Your task to perform on an android device: toggle airplane mode Image 0: 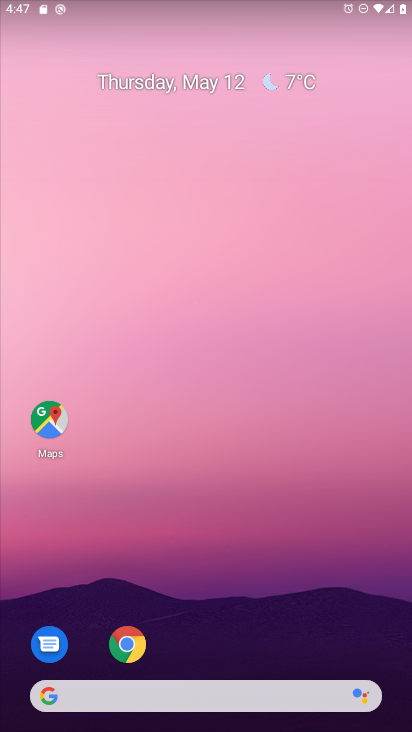
Step 0: drag from (236, 641) to (317, 209)
Your task to perform on an android device: toggle airplane mode Image 1: 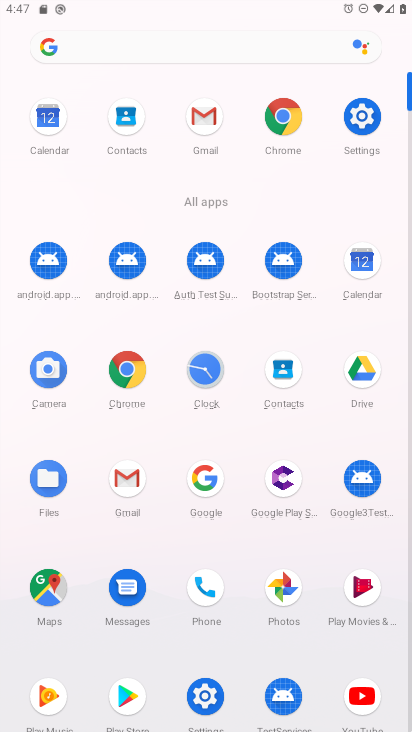
Step 1: click (361, 132)
Your task to perform on an android device: toggle airplane mode Image 2: 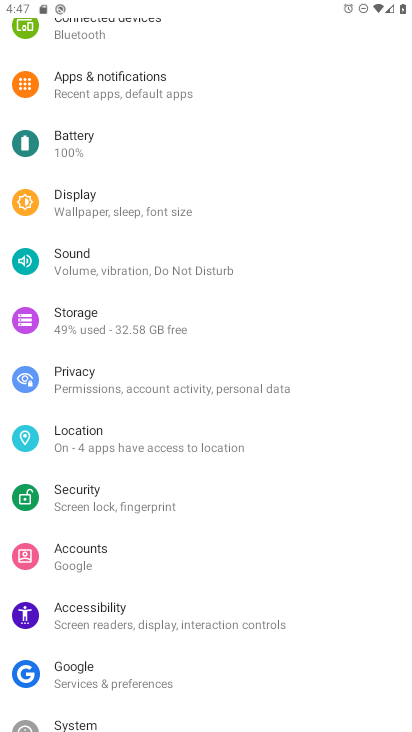
Step 2: drag from (168, 163) to (102, 555)
Your task to perform on an android device: toggle airplane mode Image 3: 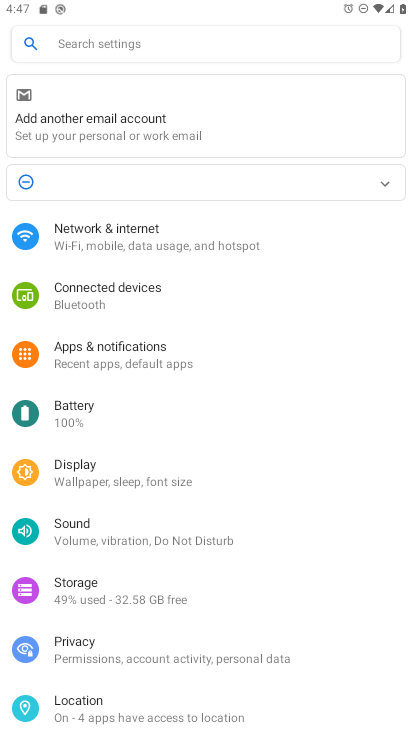
Step 3: click (140, 244)
Your task to perform on an android device: toggle airplane mode Image 4: 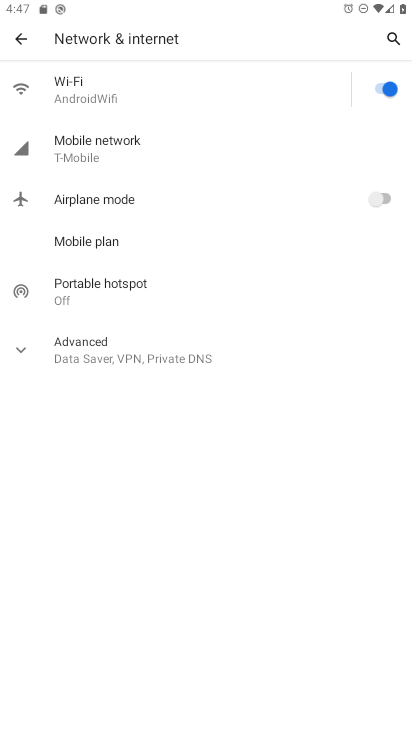
Step 4: click (123, 203)
Your task to perform on an android device: toggle airplane mode Image 5: 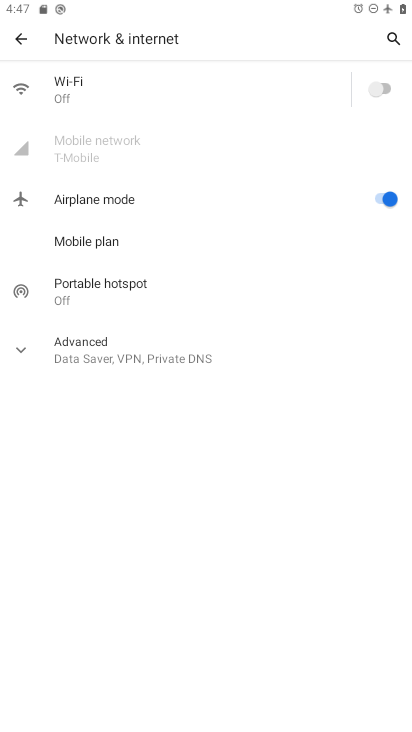
Step 5: task complete